Your task to perform on an android device: Go to Google Image 0: 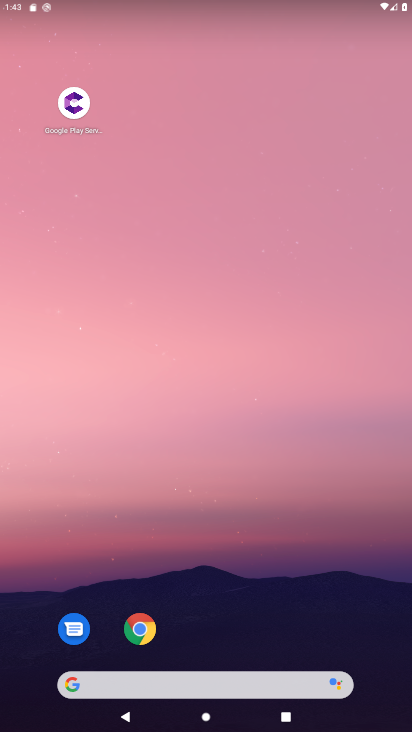
Step 0: drag from (216, 690) to (332, 149)
Your task to perform on an android device: Go to Google Image 1: 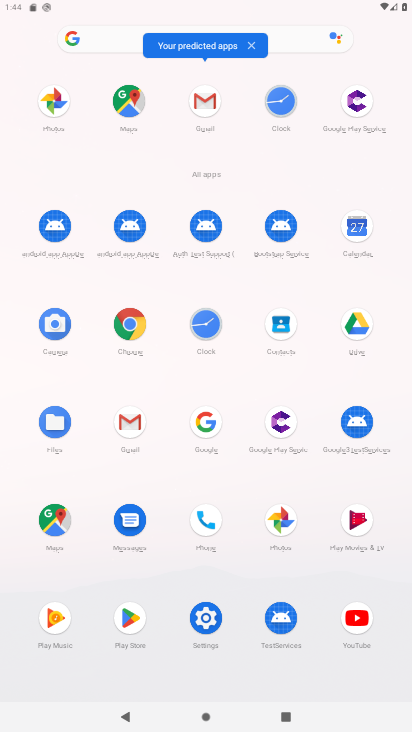
Step 1: click (202, 419)
Your task to perform on an android device: Go to Google Image 2: 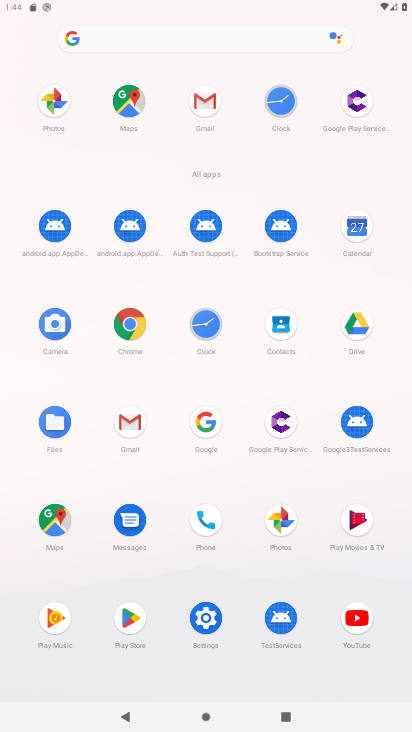
Step 2: task complete